Your task to perform on an android device: Open wifi settings Image 0: 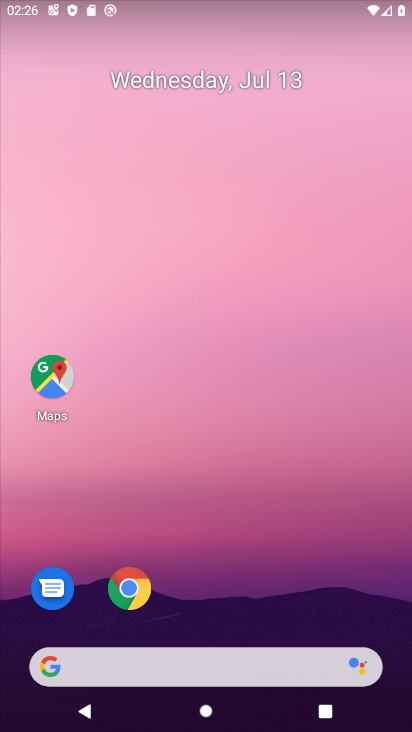
Step 0: drag from (298, 608) to (97, 165)
Your task to perform on an android device: Open wifi settings Image 1: 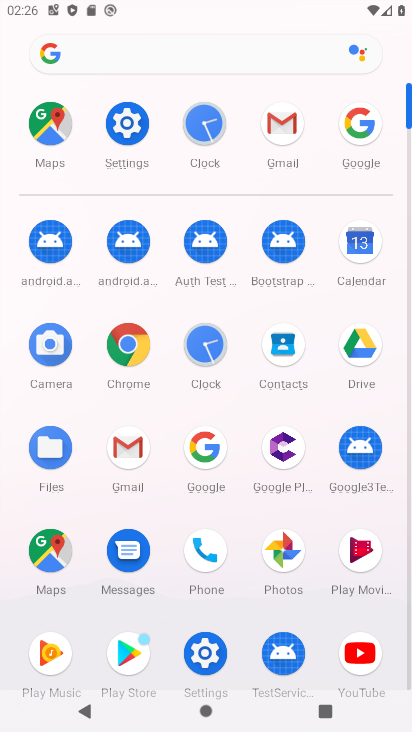
Step 1: click (119, 132)
Your task to perform on an android device: Open wifi settings Image 2: 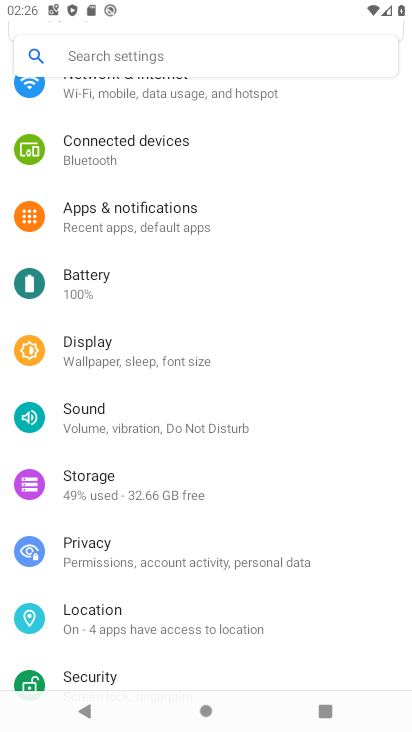
Step 2: drag from (201, 145) to (331, 384)
Your task to perform on an android device: Open wifi settings Image 3: 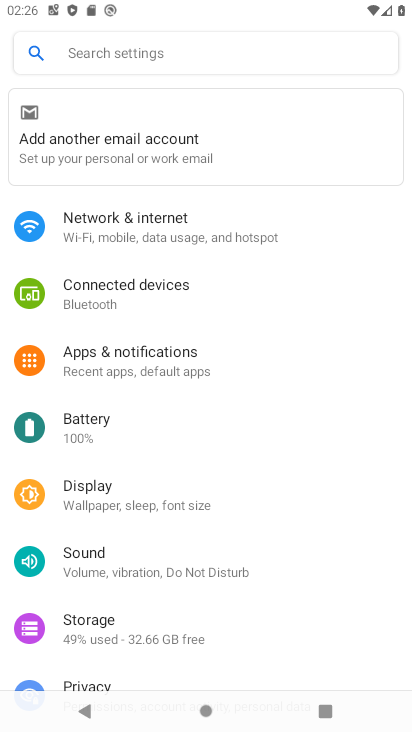
Step 3: click (132, 211)
Your task to perform on an android device: Open wifi settings Image 4: 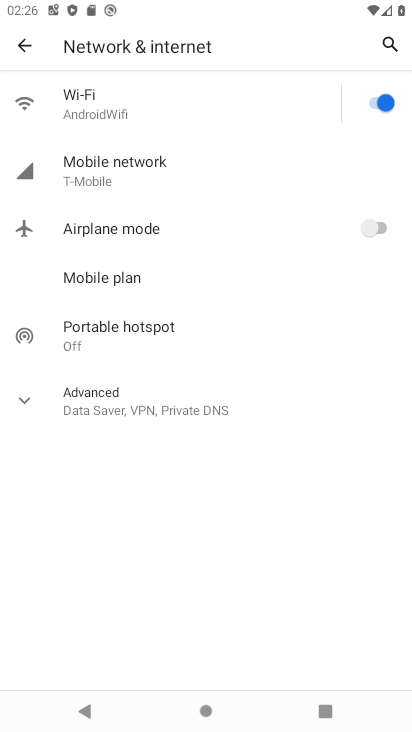
Step 4: click (244, 94)
Your task to perform on an android device: Open wifi settings Image 5: 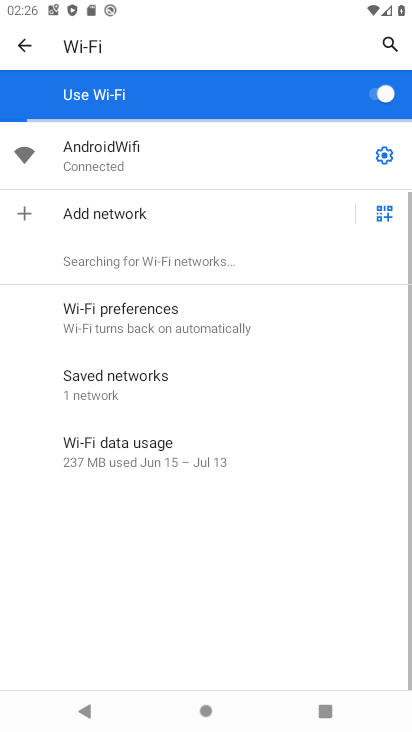
Step 5: click (378, 161)
Your task to perform on an android device: Open wifi settings Image 6: 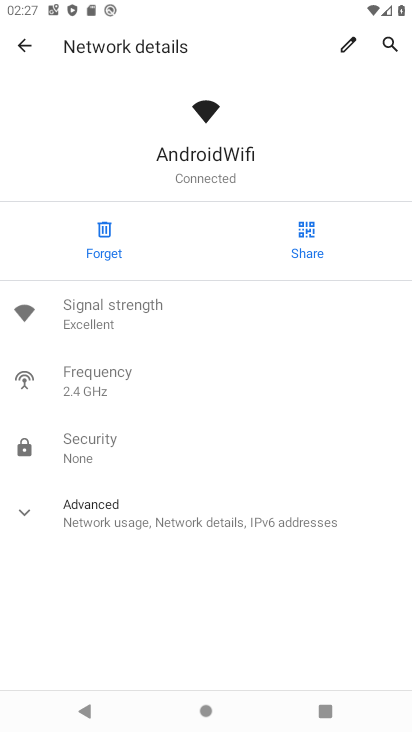
Step 6: task complete